Your task to perform on an android device: Search for razer deathadder on costco, select the first entry, add it to the cart, then select checkout. Image 0: 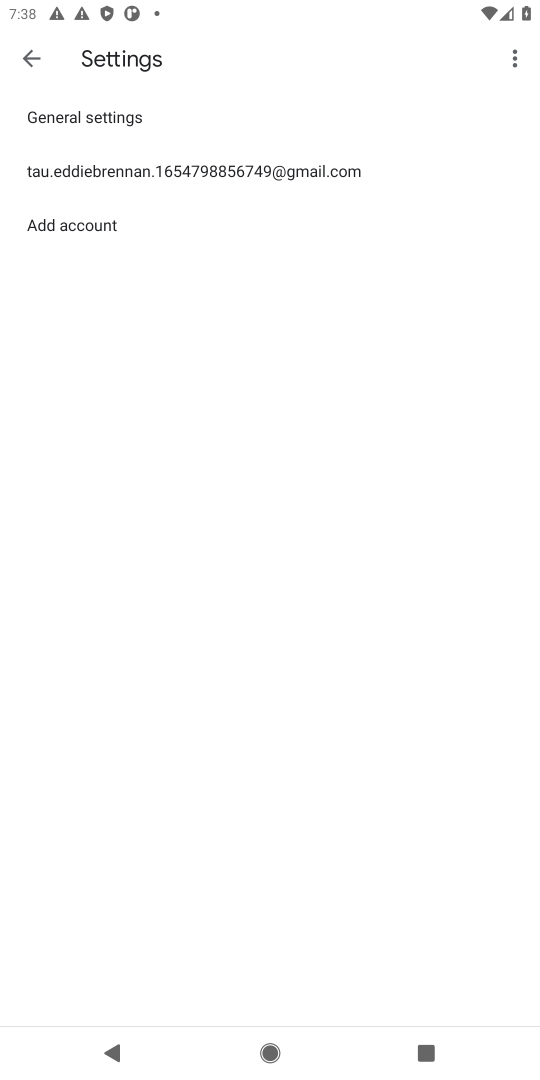
Step 0: press home button
Your task to perform on an android device: Search for razer deathadder on costco, select the first entry, add it to the cart, then select checkout. Image 1: 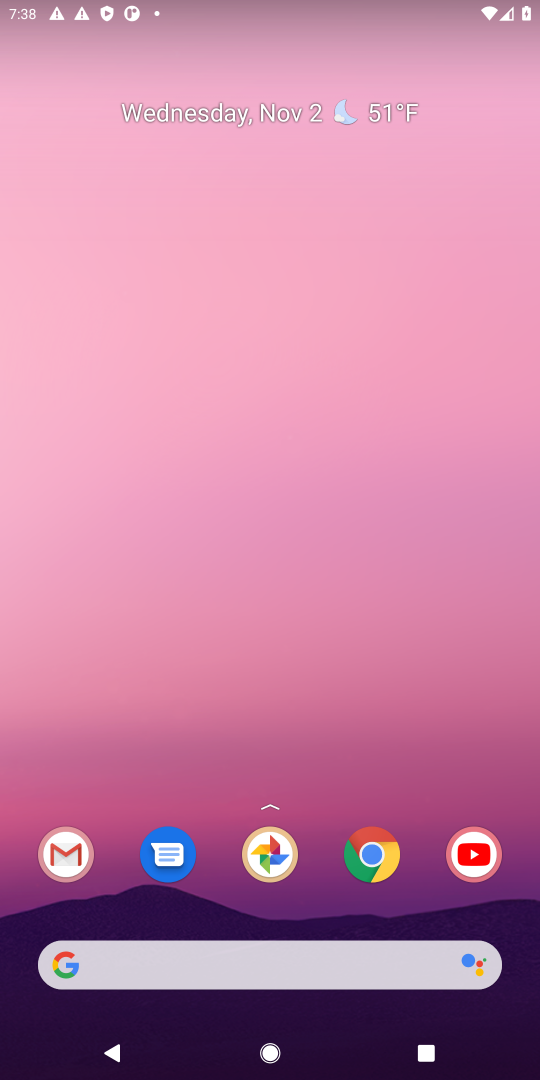
Step 1: click (355, 845)
Your task to perform on an android device: Search for razer deathadder on costco, select the first entry, add it to the cart, then select checkout. Image 2: 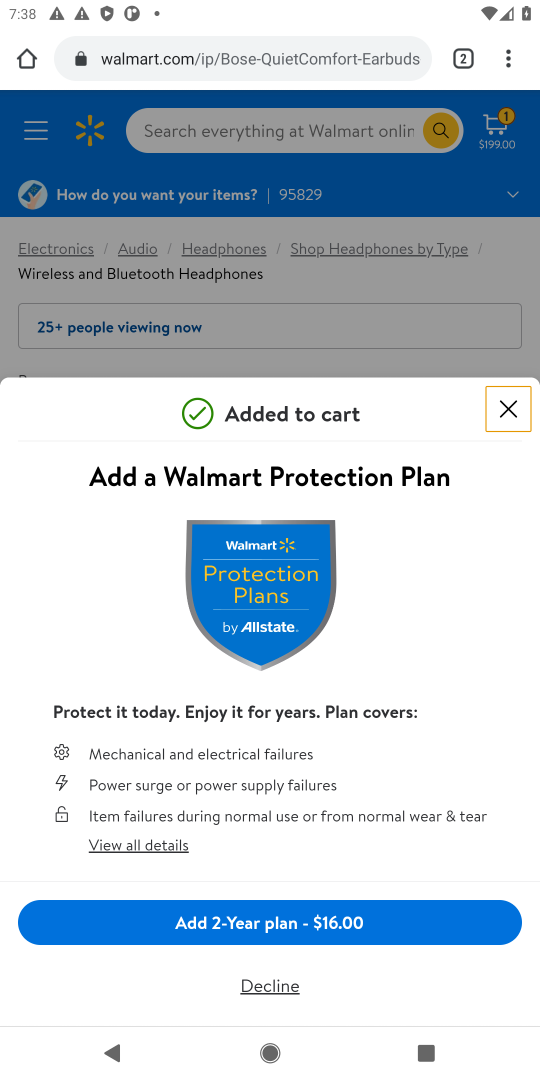
Step 2: click (504, 417)
Your task to perform on an android device: Search for razer deathadder on costco, select the first entry, add it to the cart, then select checkout. Image 3: 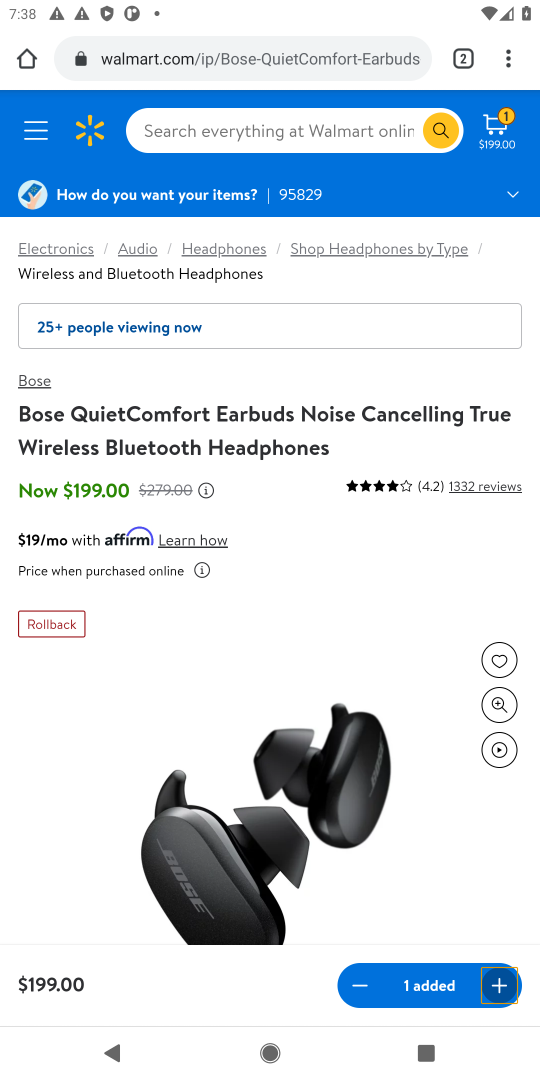
Step 3: click (459, 56)
Your task to perform on an android device: Search for razer deathadder on costco, select the first entry, add it to the cart, then select checkout. Image 4: 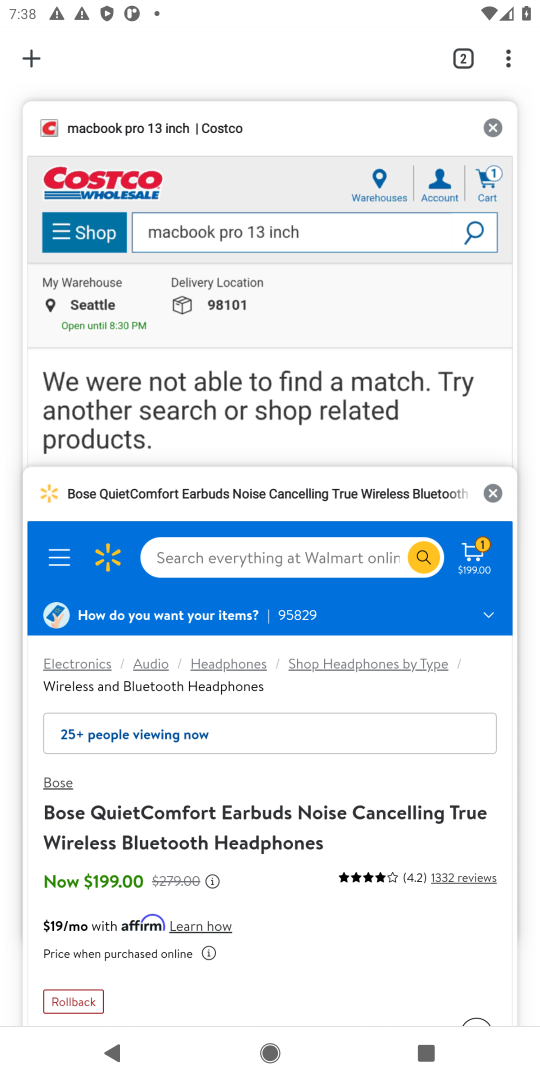
Step 4: click (168, 309)
Your task to perform on an android device: Search for razer deathadder on costco, select the first entry, add it to the cart, then select checkout. Image 5: 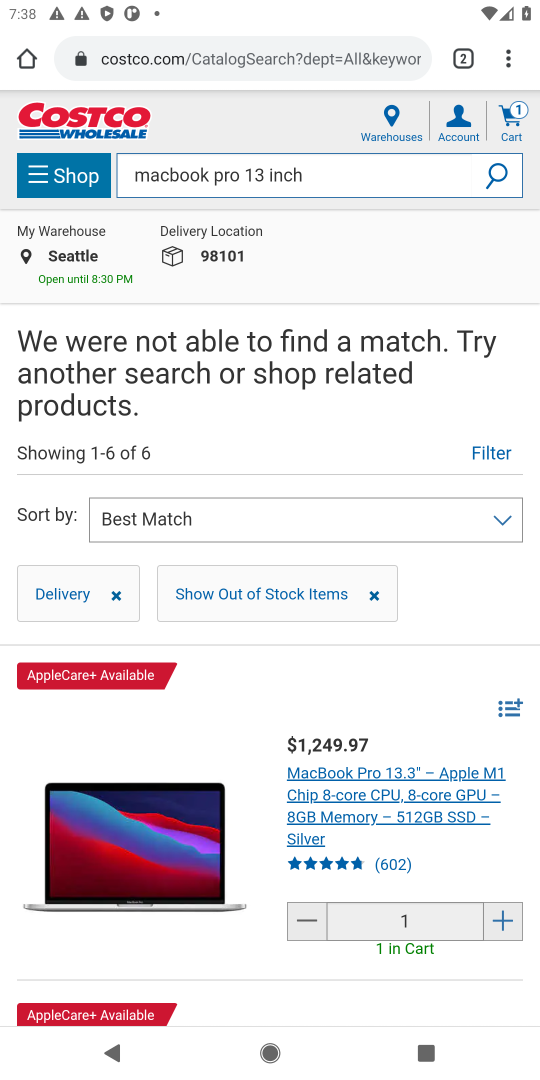
Step 5: click (396, 175)
Your task to perform on an android device: Search for razer deathadder on costco, select the first entry, add it to the cart, then select checkout. Image 6: 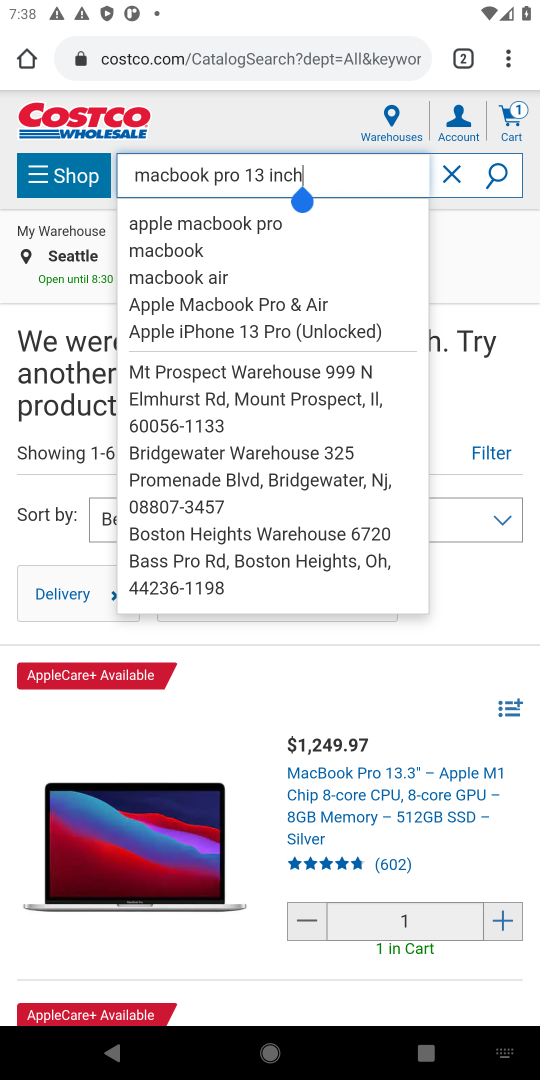
Step 6: click (448, 170)
Your task to perform on an android device: Search for razer deathadder on costco, select the first entry, add it to the cart, then select checkout. Image 7: 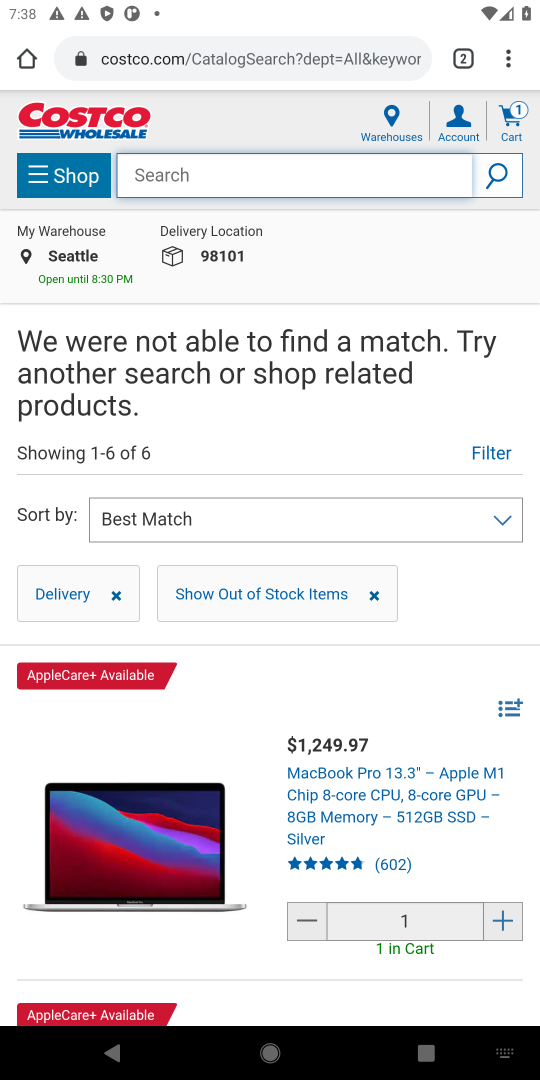
Step 7: type "razer deathadder"
Your task to perform on an android device: Search for razer deathadder on costco, select the first entry, add it to the cart, then select checkout. Image 8: 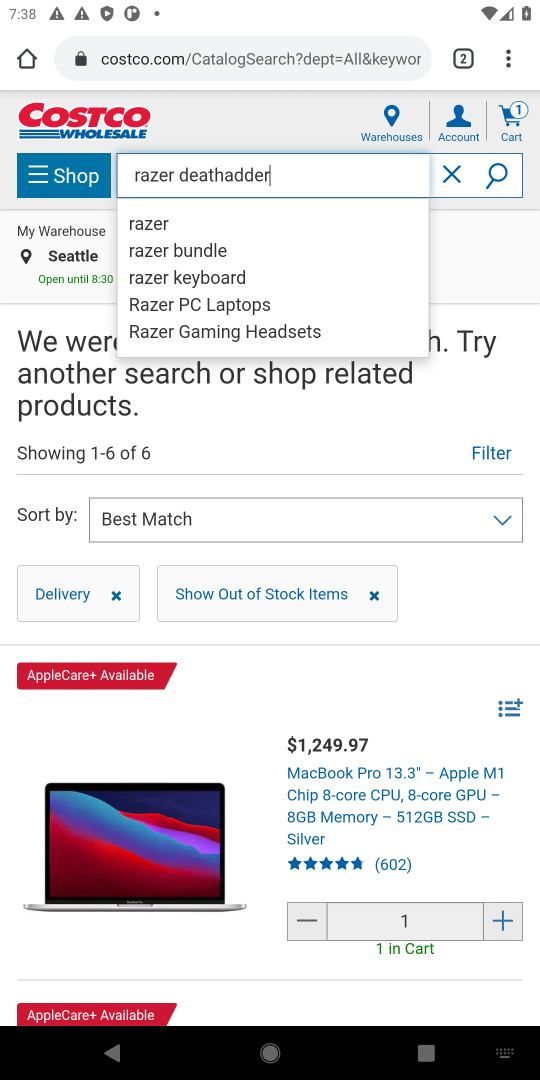
Step 8: click (151, 222)
Your task to perform on an android device: Search for razer deathadder on costco, select the first entry, add it to the cart, then select checkout. Image 9: 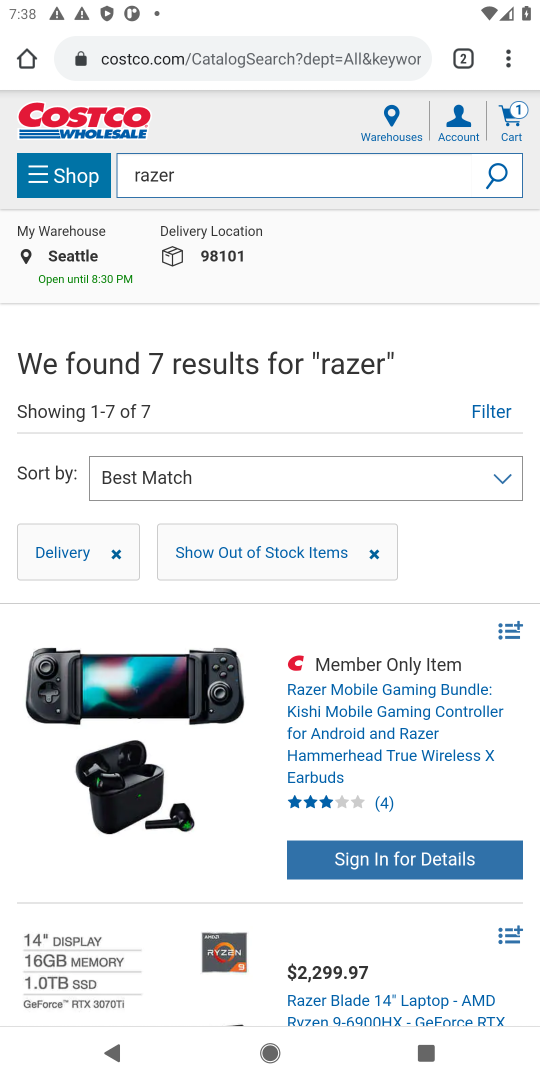
Step 9: click (486, 175)
Your task to perform on an android device: Search for razer deathadder on costco, select the first entry, add it to the cart, then select checkout. Image 10: 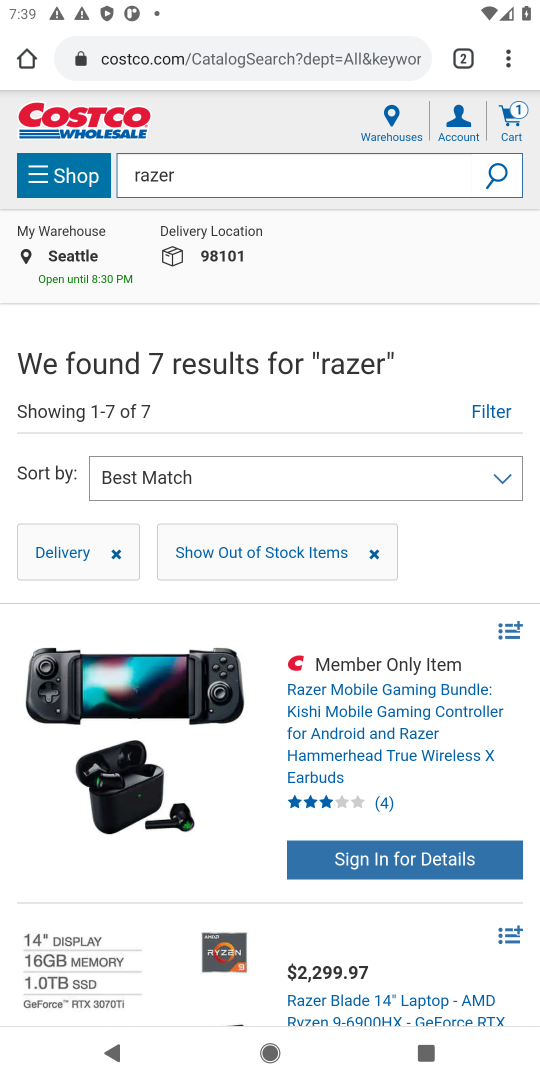
Step 10: click (375, 707)
Your task to perform on an android device: Search for razer deathadder on costco, select the first entry, add it to the cart, then select checkout. Image 11: 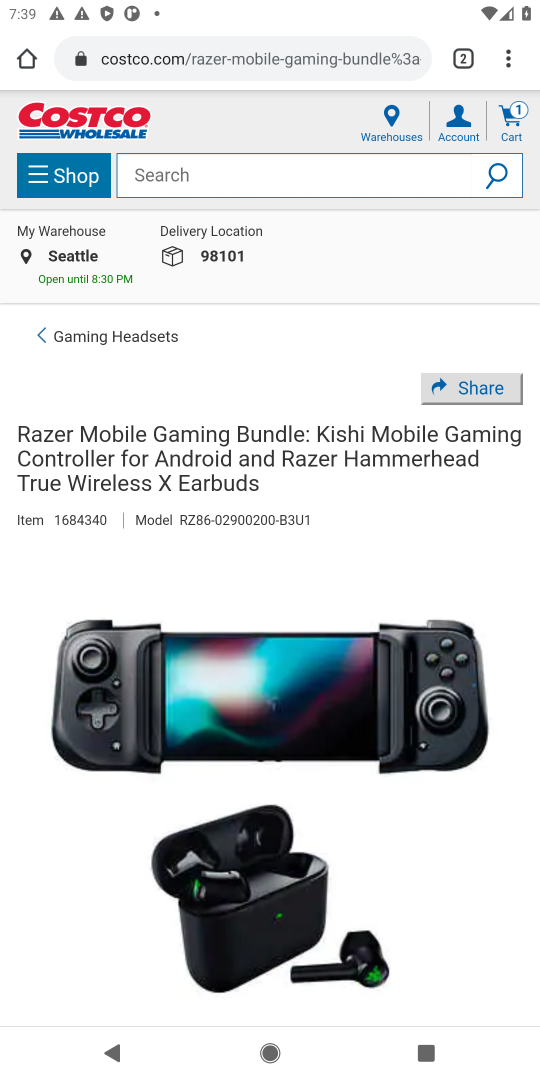
Step 11: drag from (408, 1006) to (282, 156)
Your task to perform on an android device: Search for razer deathadder on costco, select the first entry, add it to the cart, then select checkout. Image 12: 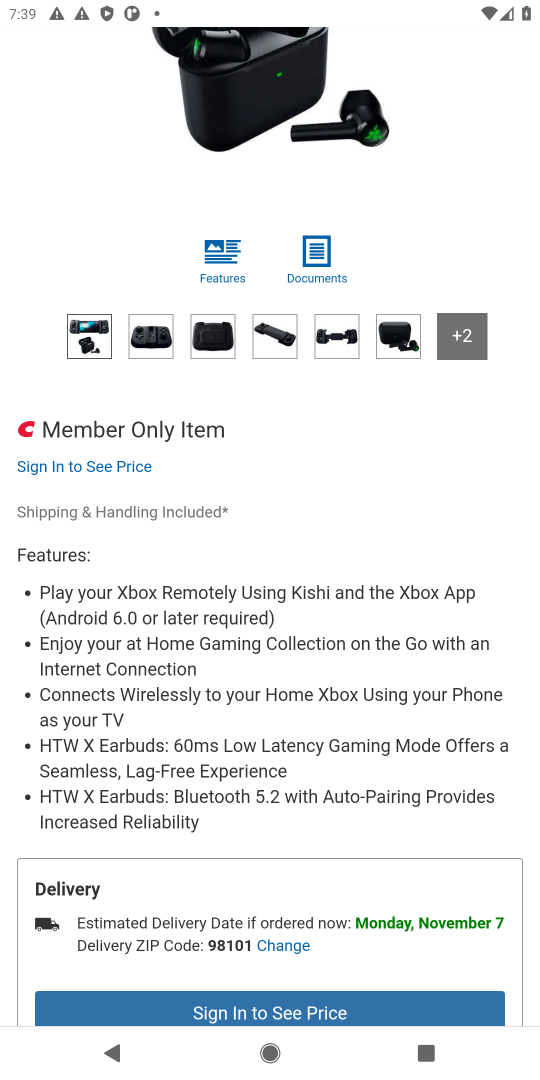
Step 12: drag from (263, 812) to (324, 432)
Your task to perform on an android device: Search for razer deathadder on costco, select the first entry, add it to the cart, then select checkout. Image 13: 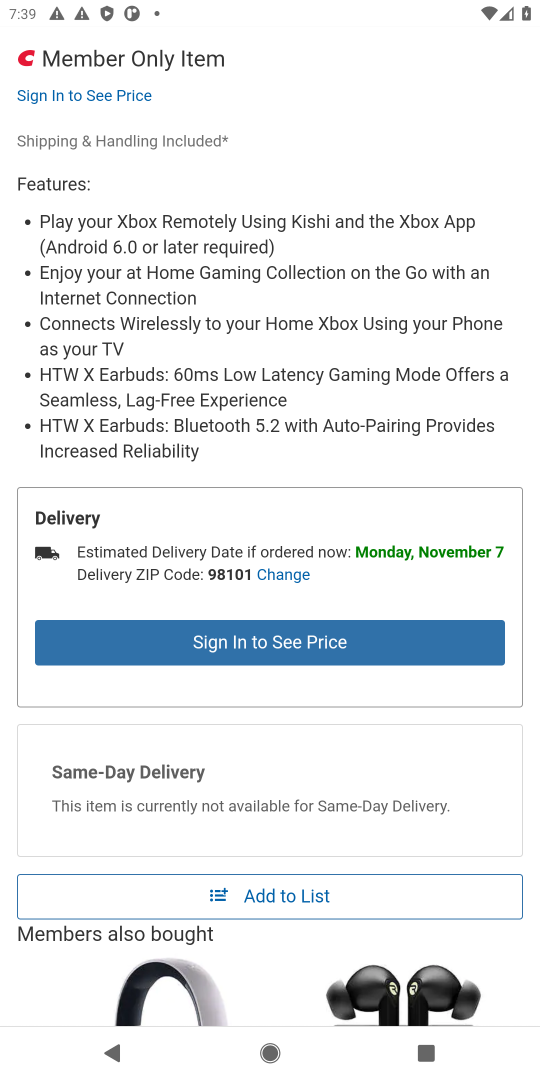
Step 13: click (248, 884)
Your task to perform on an android device: Search for razer deathadder on costco, select the first entry, add it to the cart, then select checkout. Image 14: 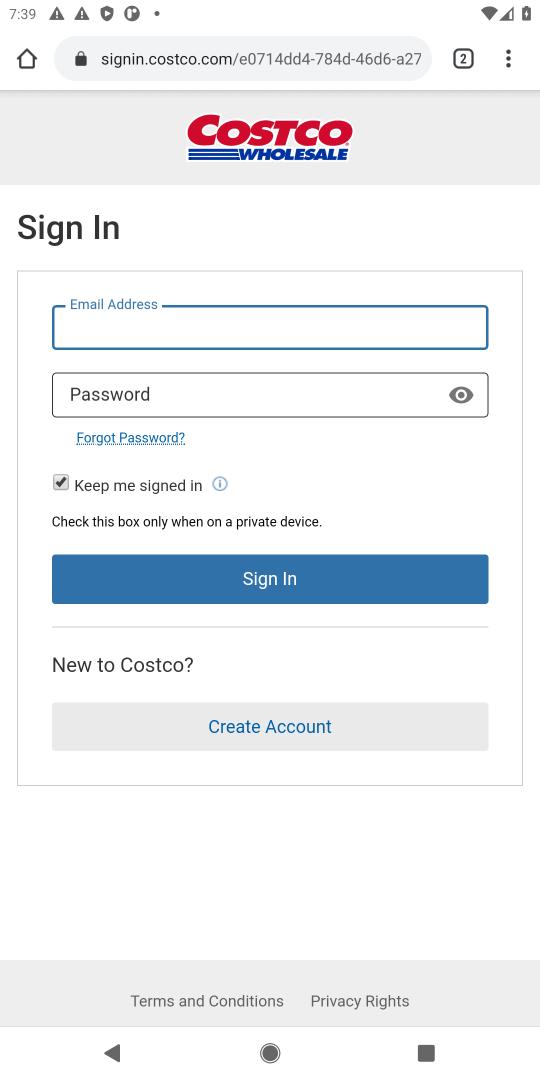
Step 14: task complete